Your task to perform on an android device: turn on the 12-hour format for clock Image 0: 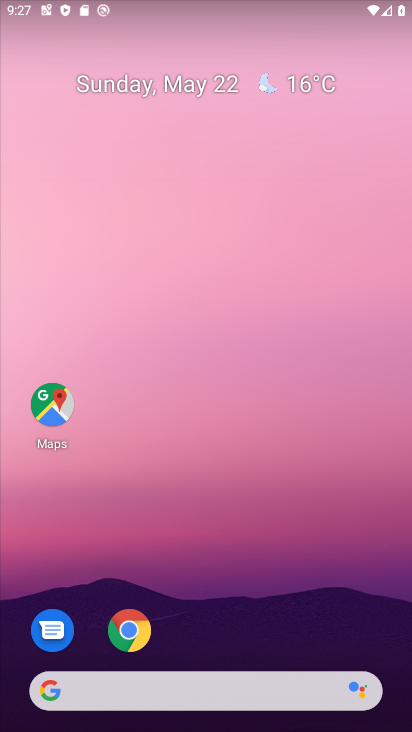
Step 0: drag from (396, 645) to (328, 115)
Your task to perform on an android device: turn on the 12-hour format for clock Image 1: 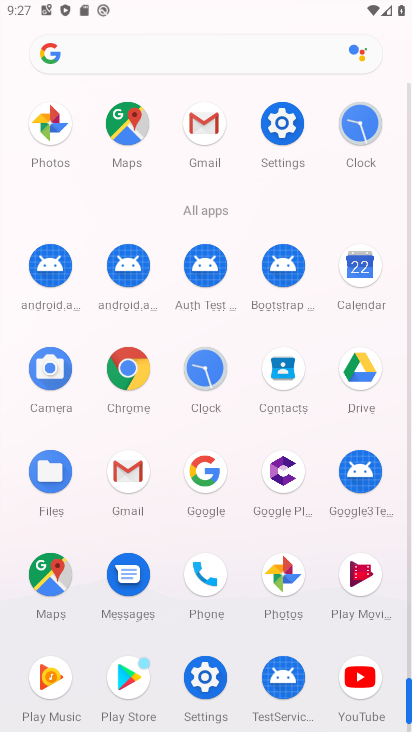
Step 1: click (205, 365)
Your task to perform on an android device: turn on the 12-hour format for clock Image 2: 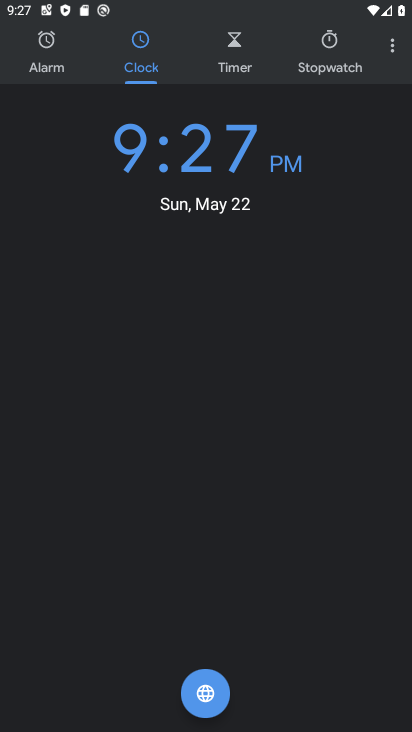
Step 2: click (391, 53)
Your task to perform on an android device: turn on the 12-hour format for clock Image 3: 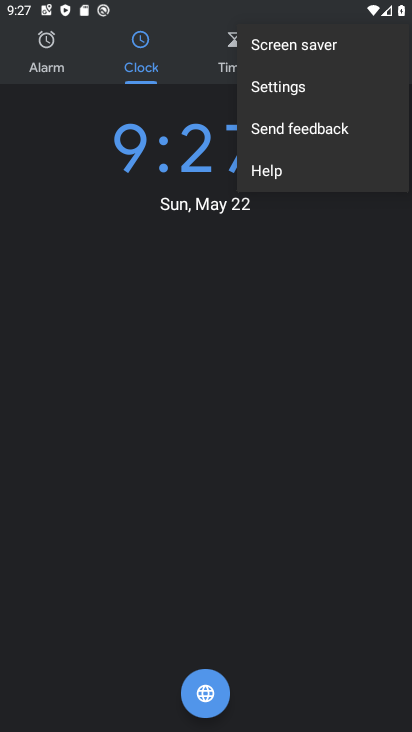
Step 3: click (271, 80)
Your task to perform on an android device: turn on the 12-hour format for clock Image 4: 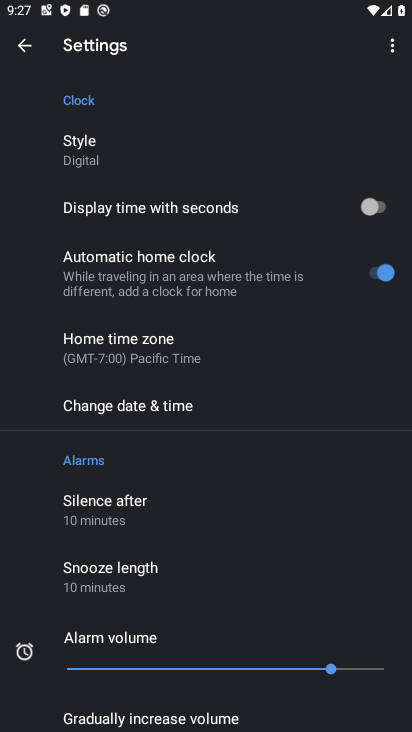
Step 4: click (161, 405)
Your task to perform on an android device: turn on the 12-hour format for clock Image 5: 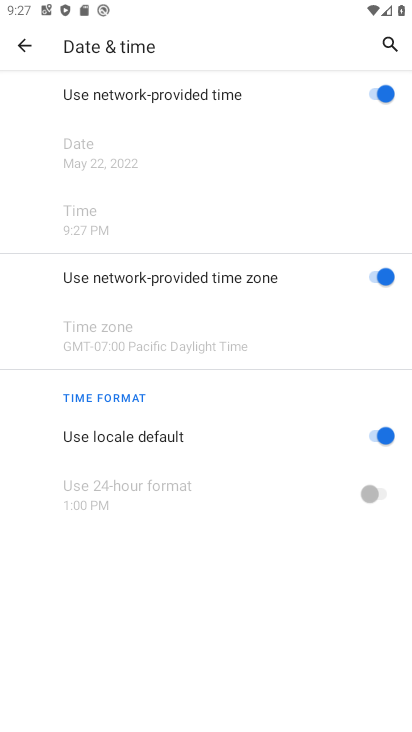
Step 5: task complete